Your task to perform on an android device: find photos in the google photos app Image 0: 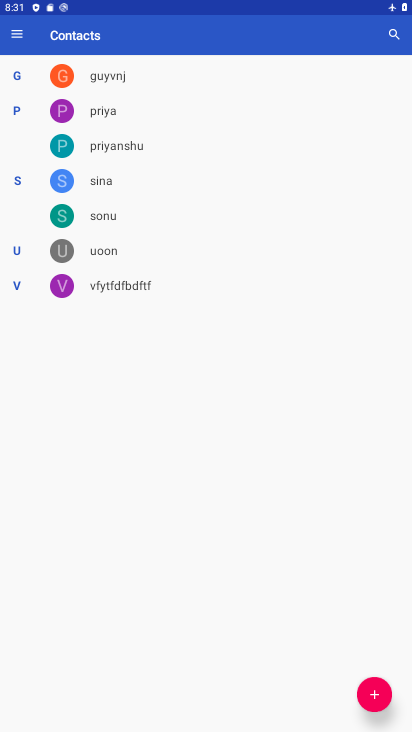
Step 0: press home button
Your task to perform on an android device: find photos in the google photos app Image 1: 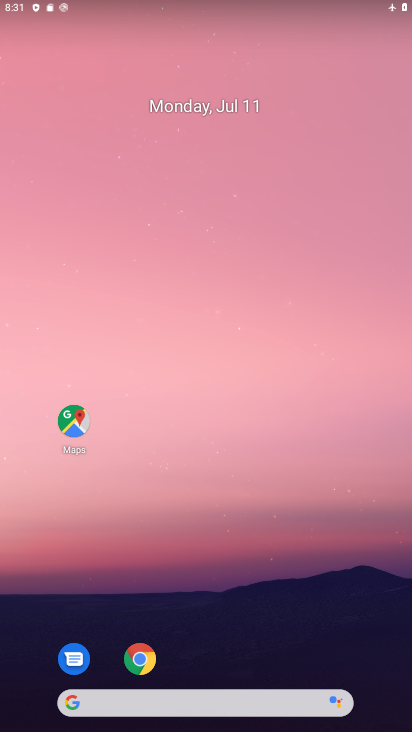
Step 1: drag from (193, 675) to (196, 238)
Your task to perform on an android device: find photos in the google photos app Image 2: 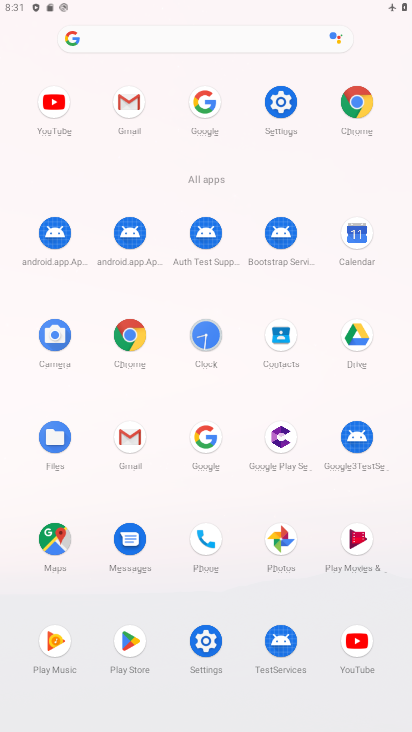
Step 2: click (279, 544)
Your task to perform on an android device: find photos in the google photos app Image 3: 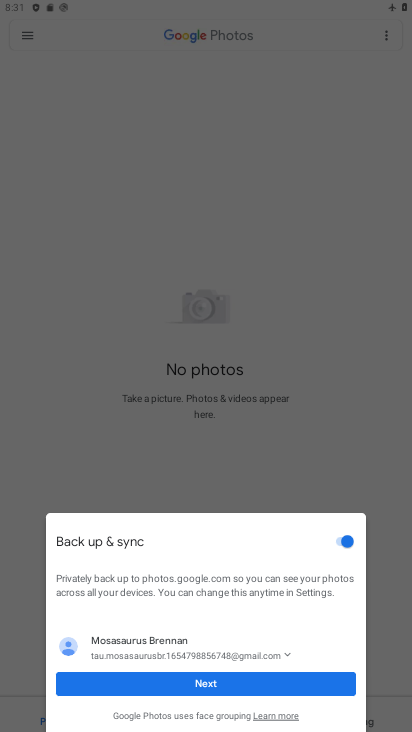
Step 3: click (217, 441)
Your task to perform on an android device: find photos in the google photos app Image 4: 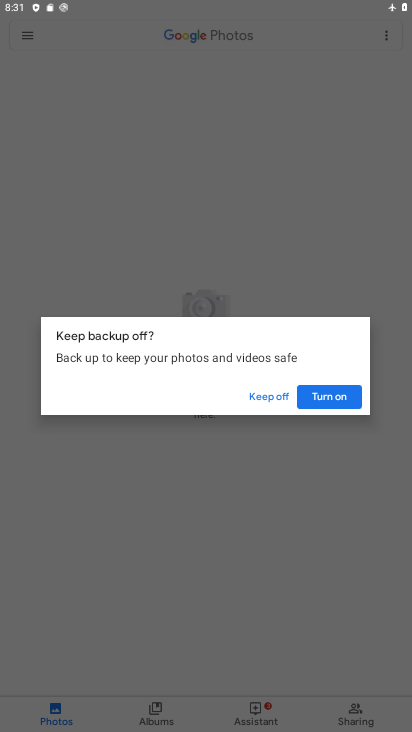
Step 4: click (264, 396)
Your task to perform on an android device: find photos in the google photos app Image 5: 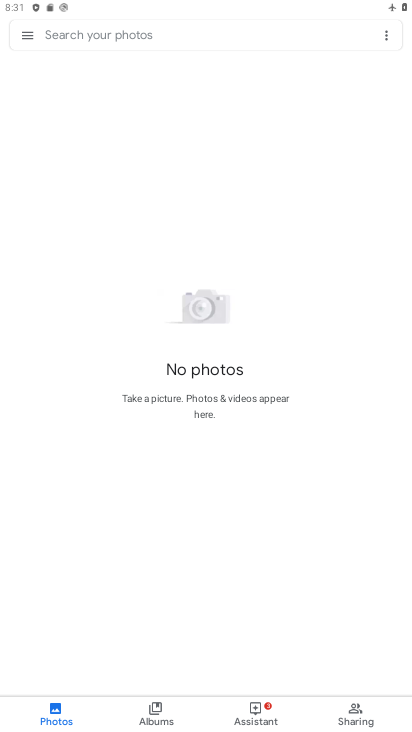
Step 5: click (145, 40)
Your task to perform on an android device: find photos in the google photos app Image 6: 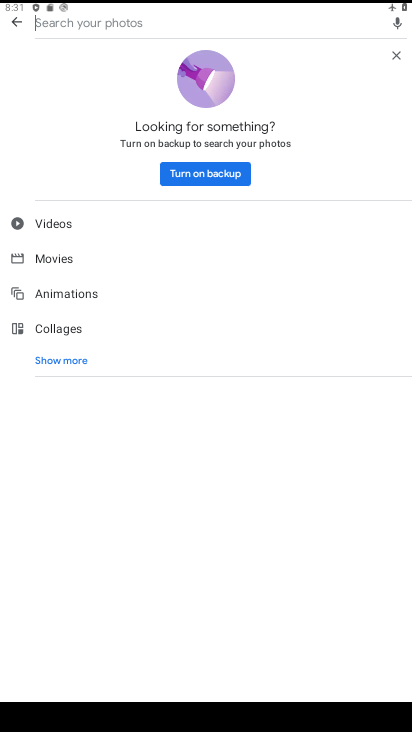
Step 6: type "aa"
Your task to perform on an android device: find photos in the google photos app Image 7: 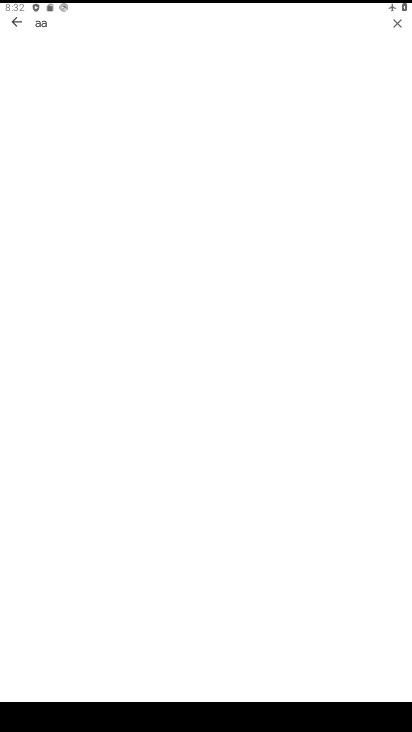
Step 7: task complete